Your task to perform on an android device: turn on data saver in the chrome app Image 0: 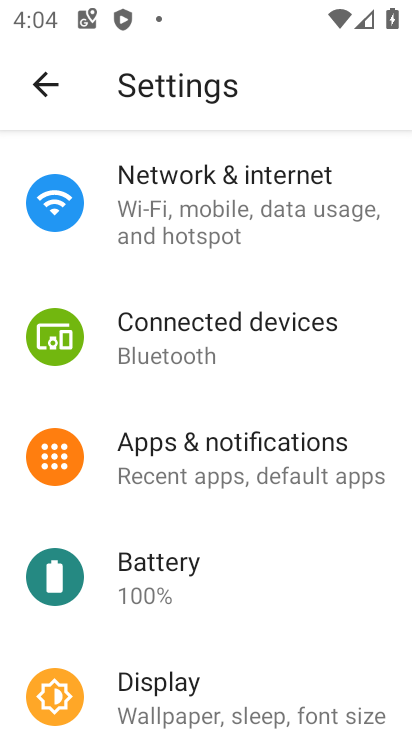
Step 0: press back button
Your task to perform on an android device: turn on data saver in the chrome app Image 1: 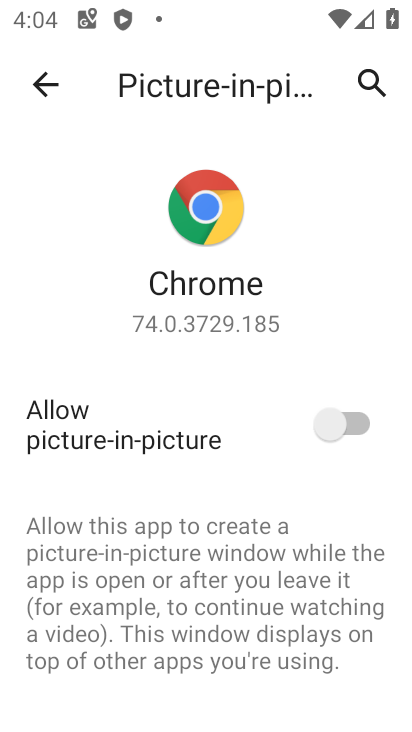
Step 1: press back button
Your task to perform on an android device: turn on data saver in the chrome app Image 2: 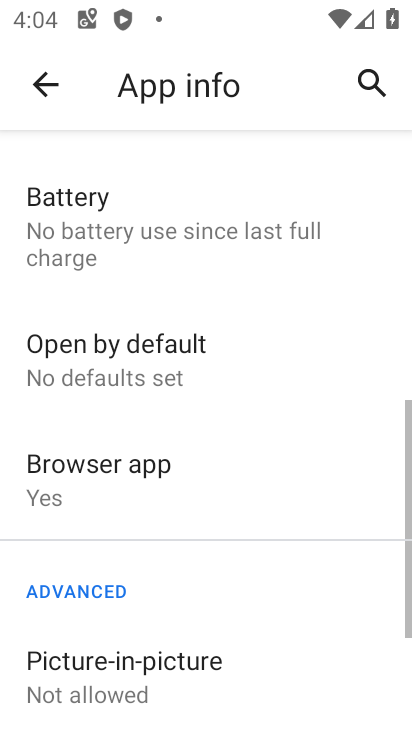
Step 2: press back button
Your task to perform on an android device: turn on data saver in the chrome app Image 3: 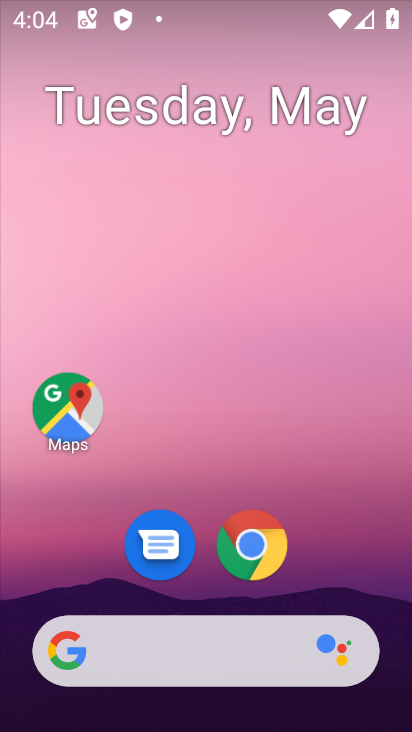
Step 3: click (250, 542)
Your task to perform on an android device: turn on data saver in the chrome app Image 4: 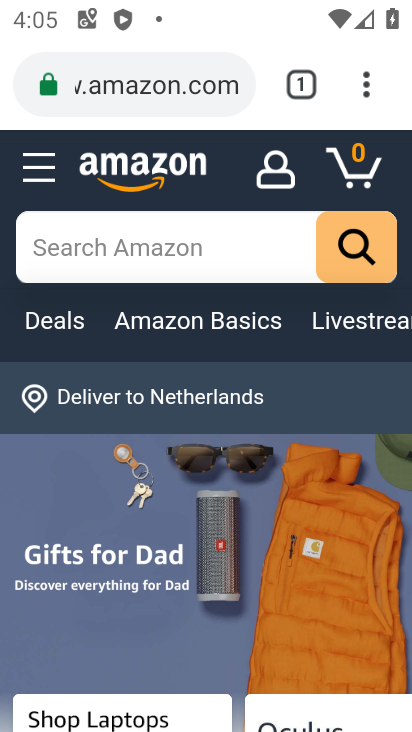
Step 4: click (367, 80)
Your task to perform on an android device: turn on data saver in the chrome app Image 5: 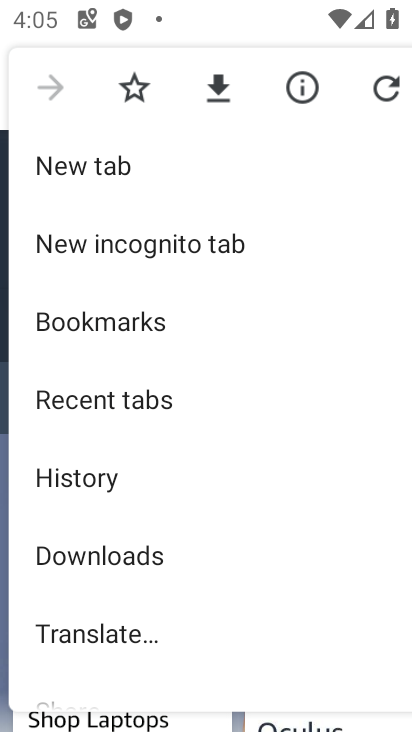
Step 5: drag from (145, 501) to (193, 360)
Your task to perform on an android device: turn on data saver in the chrome app Image 6: 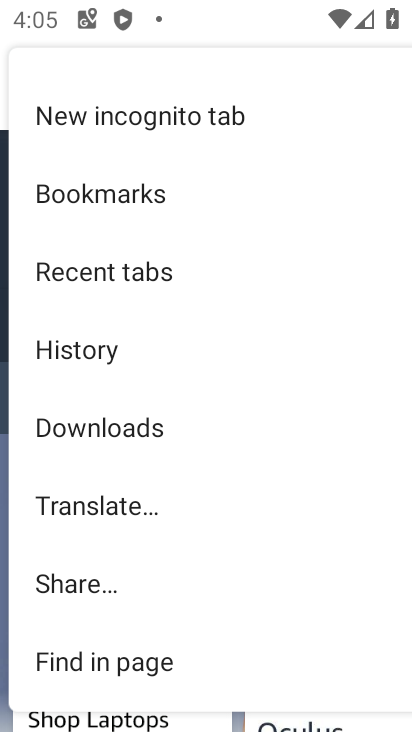
Step 6: drag from (142, 456) to (196, 379)
Your task to perform on an android device: turn on data saver in the chrome app Image 7: 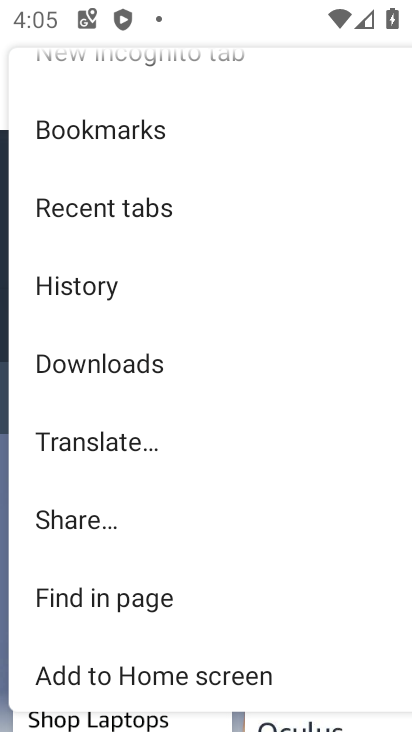
Step 7: drag from (146, 498) to (194, 421)
Your task to perform on an android device: turn on data saver in the chrome app Image 8: 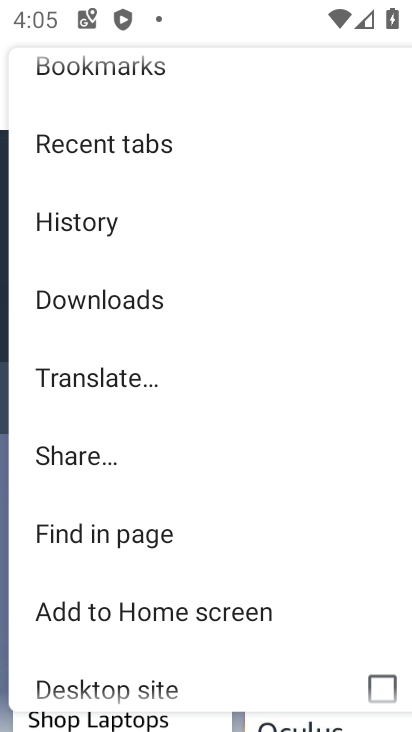
Step 8: drag from (122, 568) to (198, 445)
Your task to perform on an android device: turn on data saver in the chrome app Image 9: 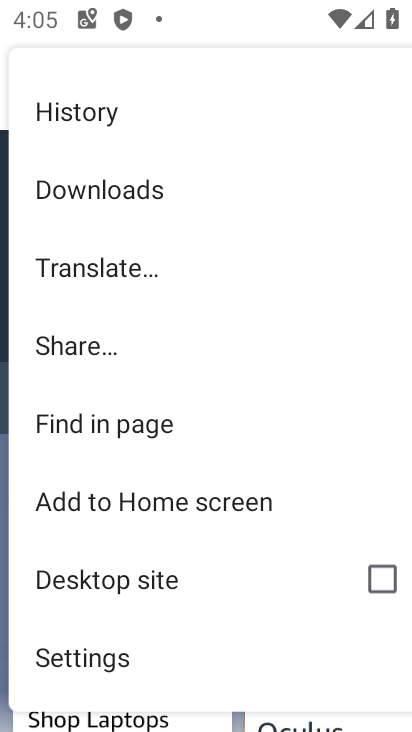
Step 9: drag from (121, 562) to (225, 428)
Your task to perform on an android device: turn on data saver in the chrome app Image 10: 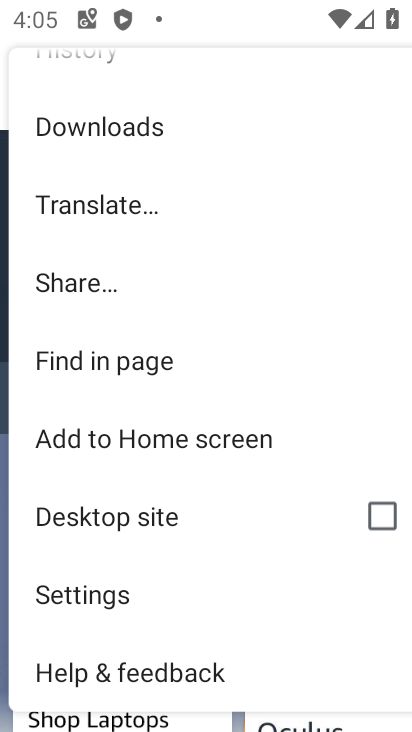
Step 10: click (93, 595)
Your task to perform on an android device: turn on data saver in the chrome app Image 11: 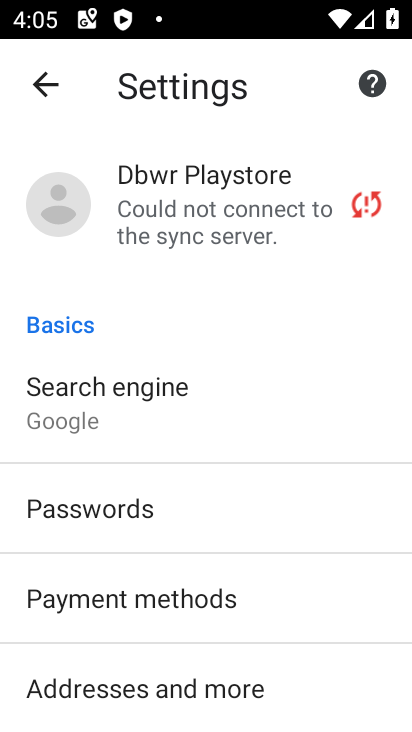
Step 11: drag from (135, 573) to (218, 441)
Your task to perform on an android device: turn on data saver in the chrome app Image 12: 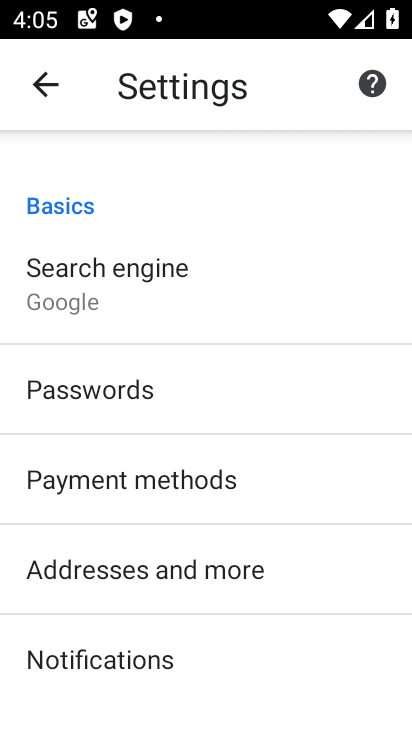
Step 12: drag from (139, 602) to (228, 451)
Your task to perform on an android device: turn on data saver in the chrome app Image 13: 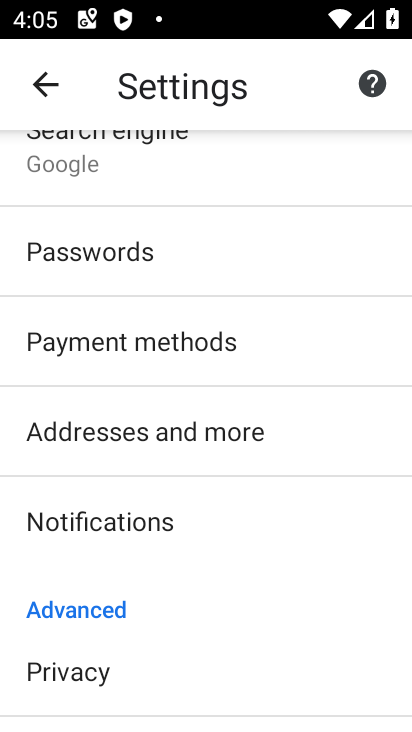
Step 13: drag from (119, 573) to (204, 439)
Your task to perform on an android device: turn on data saver in the chrome app Image 14: 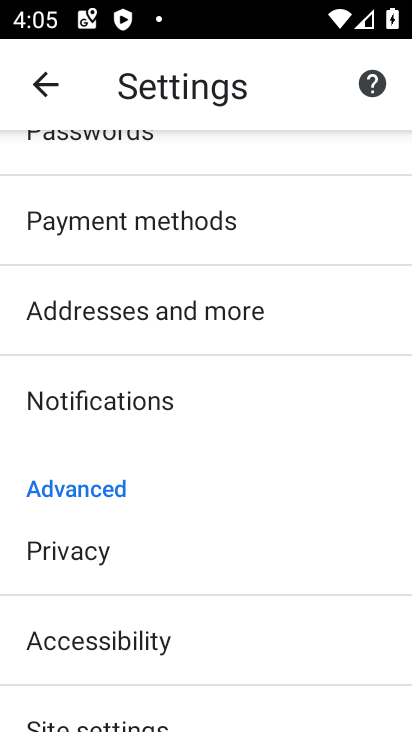
Step 14: drag from (103, 602) to (202, 477)
Your task to perform on an android device: turn on data saver in the chrome app Image 15: 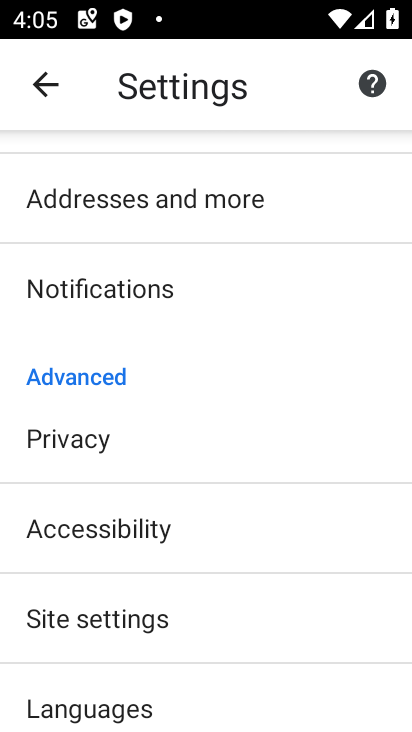
Step 15: drag from (107, 639) to (223, 458)
Your task to perform on an android device: turn on data saver in the chrome app Image 16: 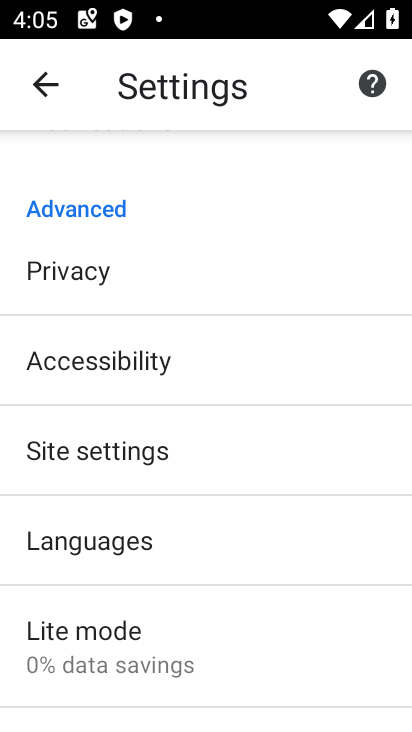
Step 16: click (130, 669)
Your task to perform on an android device: turn on data saver in the chrome app Image 17: 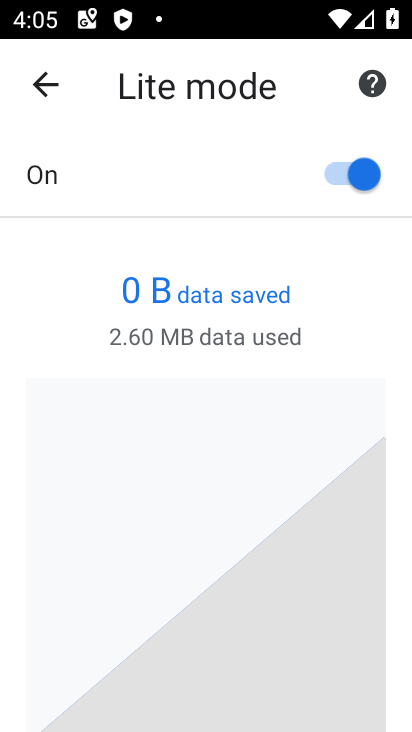
Step 17: task complete